Your task to perform on an android device: find snoozed emails in the gmail app Image 0: 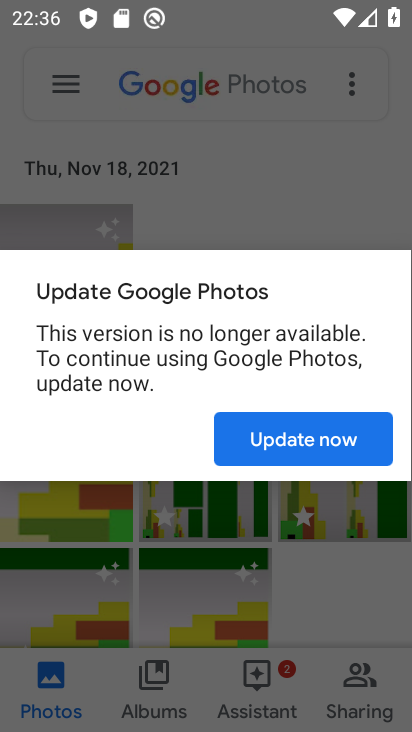
Step 0: press home button
Your task to perform on an android device: find snoozed emails in the gmail app Image 1: 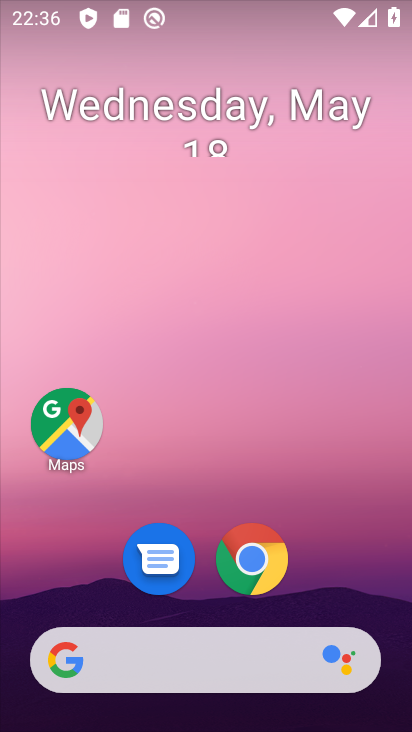
Step 1: drag from (314, 568) to (213, 261)
Your task to perform on an android device: find snoozed emails in the gmail app Image 2: 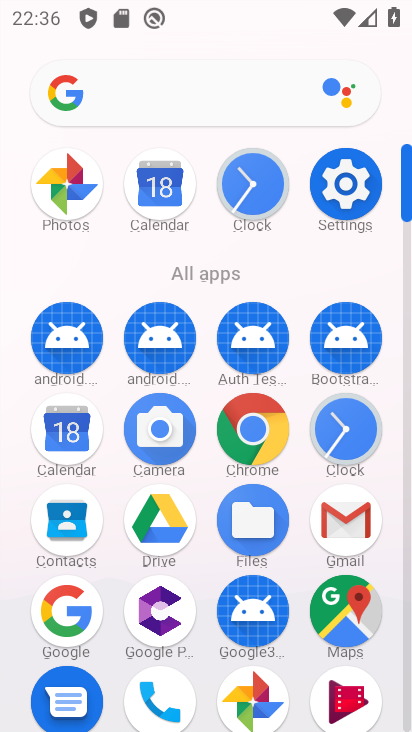
Step 2: click (337, 530)
Your task to perform on an android device: find snoozed emails in the gmail app Image 3: 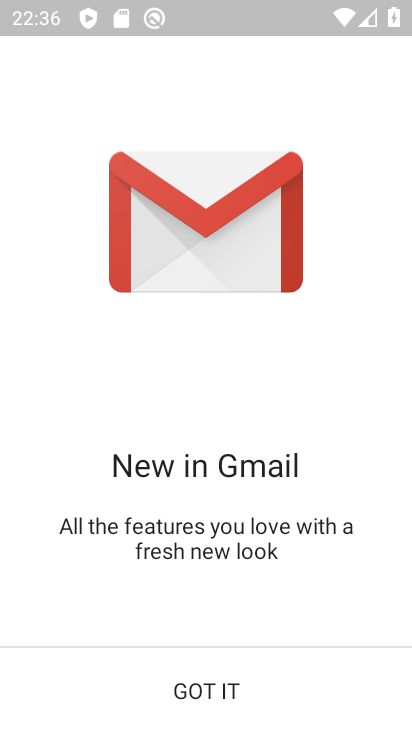
Step 3: click (205, 677)
Your task to perform on an android device: find snoozed emails in the gmail app Image 4: 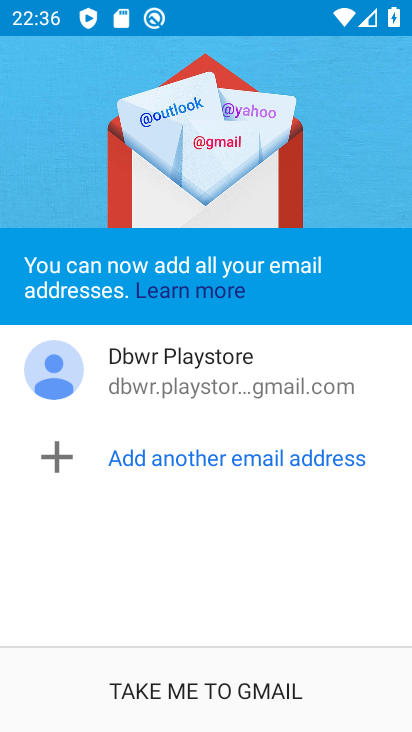
Step 4: click (205, 677)
Your task to perform on an android device: find snoozed emails in the gmail app Image 5: 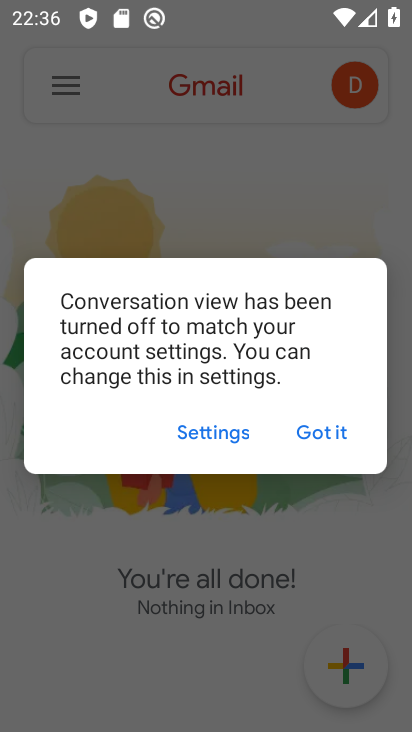
Step 5: click (333, 431)
Your task to perform on an android device: find snoozed emails in the gmail app Image 6: 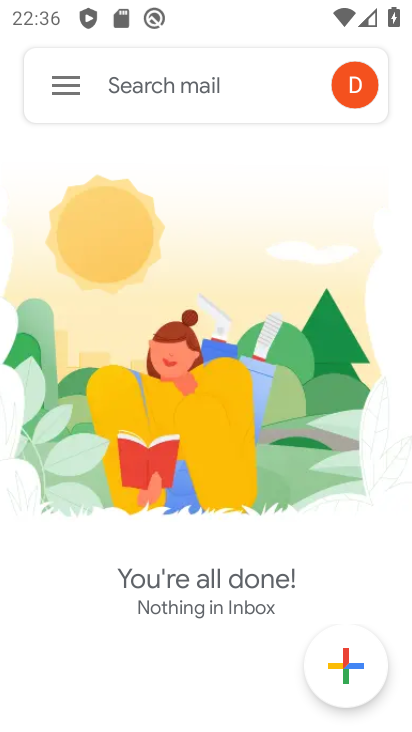
Step 6: click (60, 85)
Your task to perform on an android device: find snoozed emails in the gmail app Image 7: 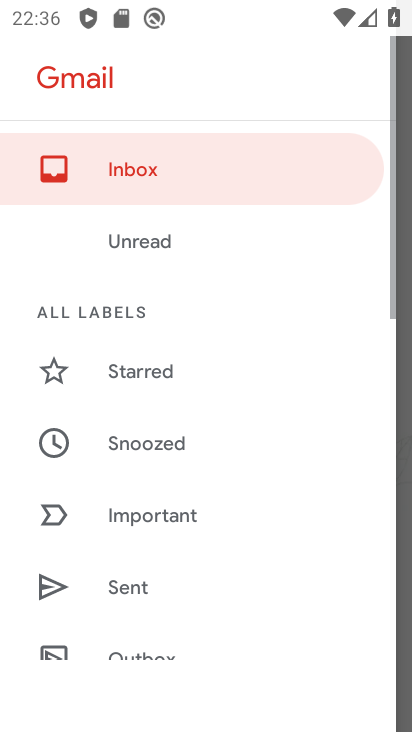
Step 7: click (174, 443)
Your task to perform on an android device: find snoozed emails in the gmail app Image 8: 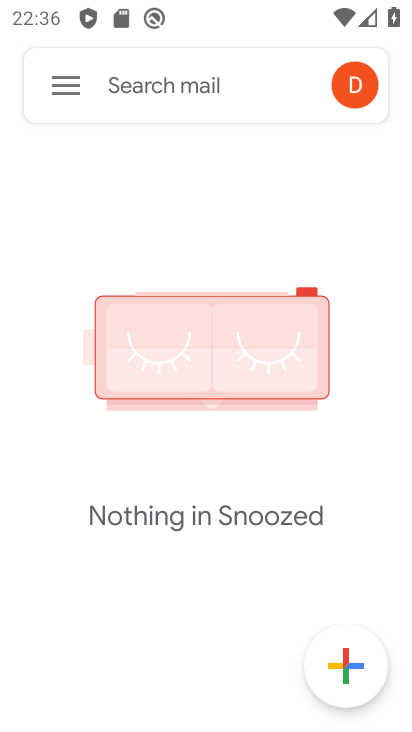
Step 8: task complete